Your task to perform on an android device: change keyboard looks Image 0: 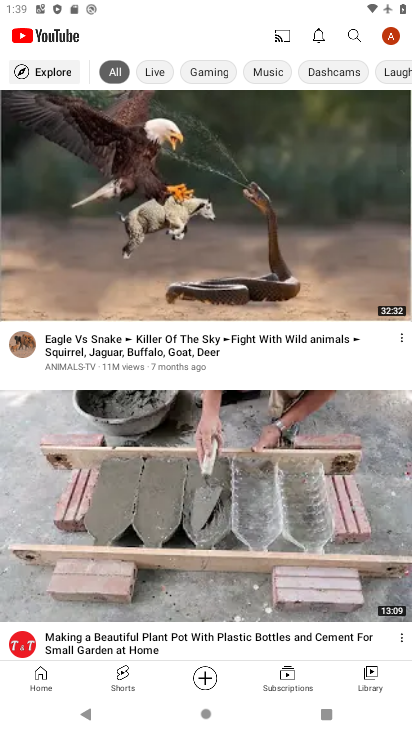
Step 0: press home button
Your task to perform on an android device: change keyboard looks Image 1: 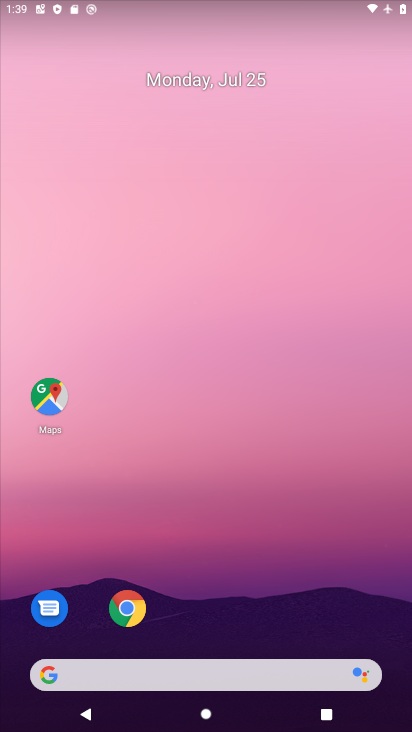
Step 1: drag from (183, 571) to (250, 223)
Your task to perform on an android device: change keyboard looks Image 2: 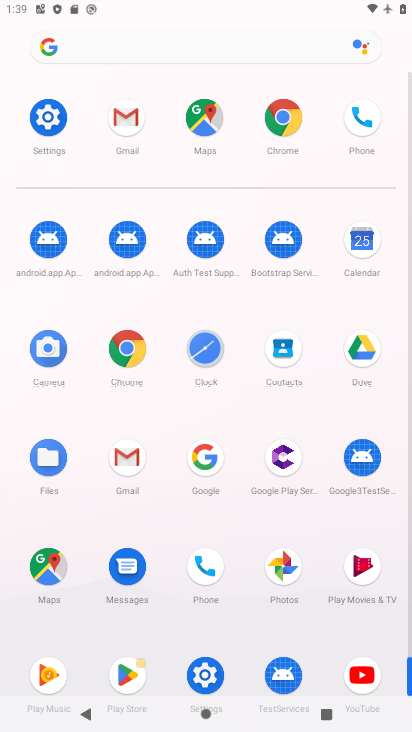
Step 2: click (58, 136)
Your task to perform on an android device: change keyboard looks Image 3: 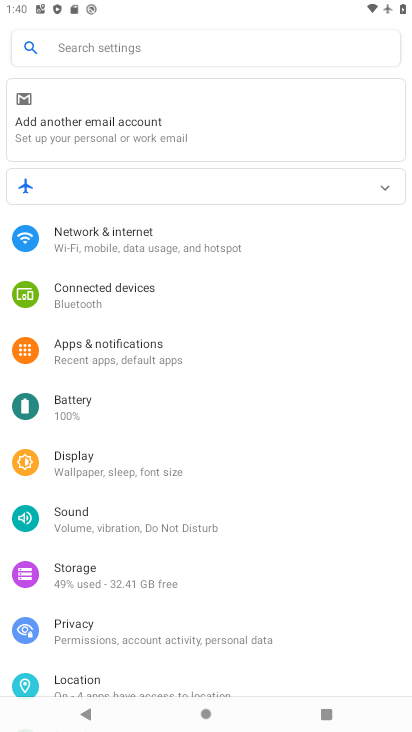
Step 3: drag from (121, 545) to (178, 325)
Your task to perform on an android device: change keyboard looks Image 4: 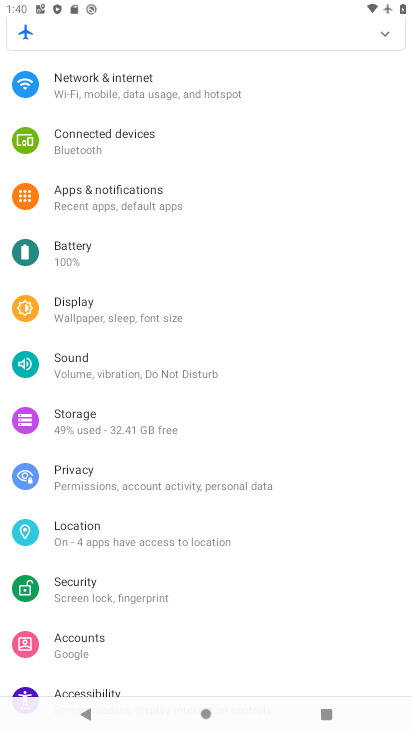
Step 4: drag from (126, 549) to (198, 182)
Your task to perform on an android device: change keyboard looks Image 5: 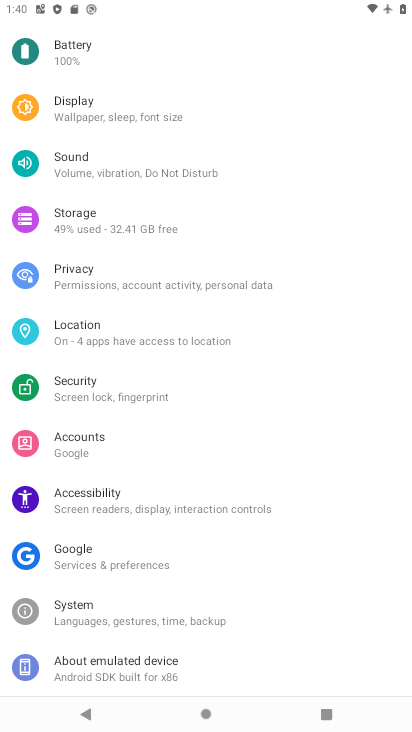
Step 5: click (101, 615)
Your task to perform on an android device: change keyboard looks Image 6: 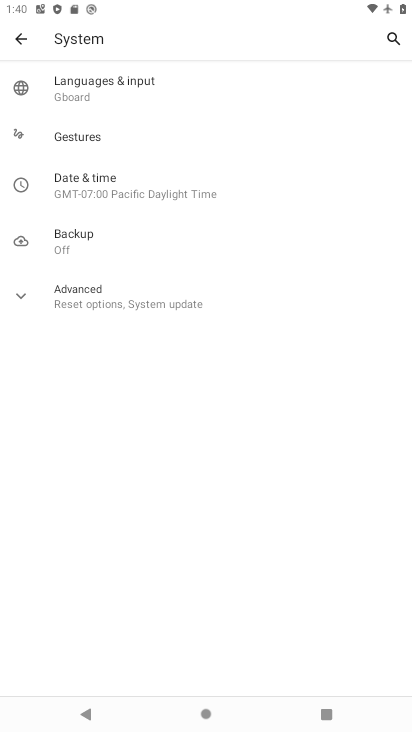
Step 6: click (110, 96)
Your task to perform on an android device: change keyboard looks Image 7: 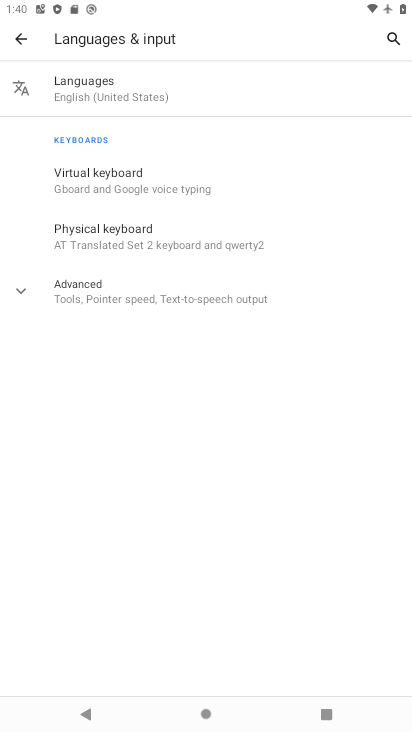
Step 7: click (129, 186)
Your task to perform on an android device: change keyboard looks Image 8: 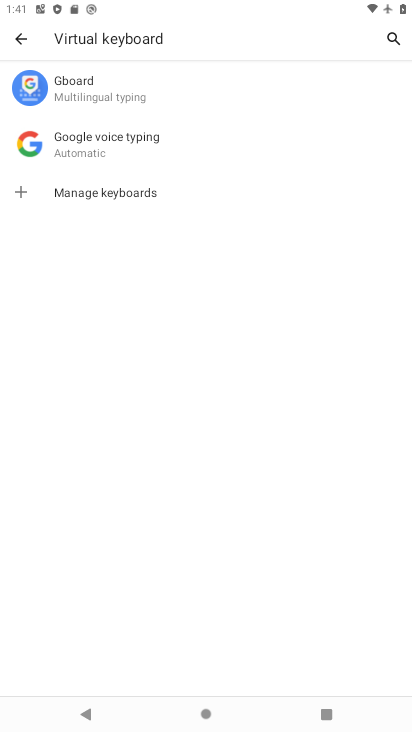
Step 8: click (179, 87)
Your task to perform on an android device: change keyboard looks Image 9: 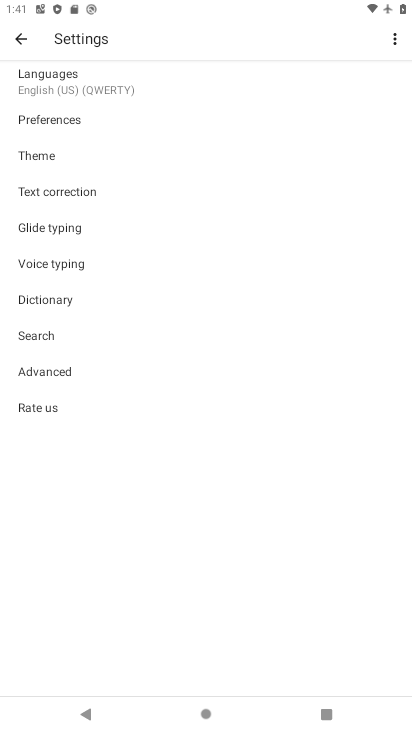
Step 9: click (40, 154)
Your task to perform on an android device: change keyboard looks Image 10: 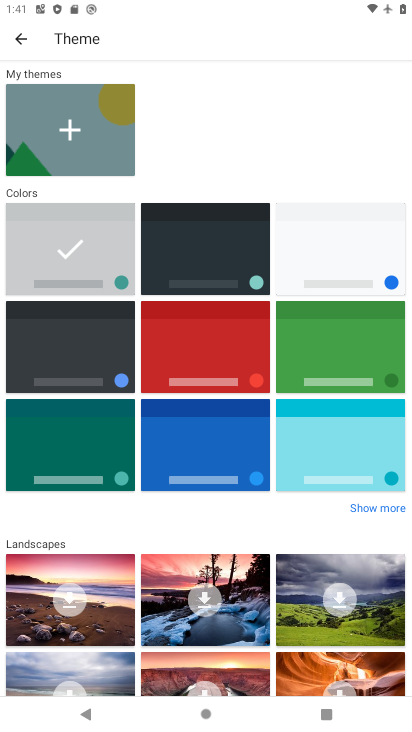
Step 10: click (210, 469)
Your task to perform on an android device: change keyboard looks Image 11: 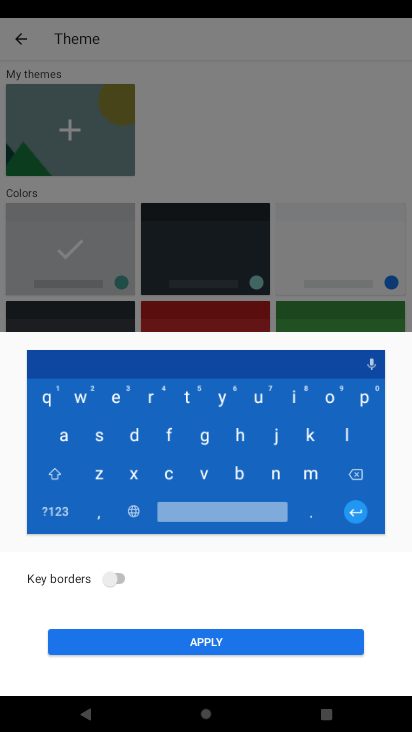
Step 11: click (267, 644)
Your task to perform on an android device: change keyboard looks Image 12: 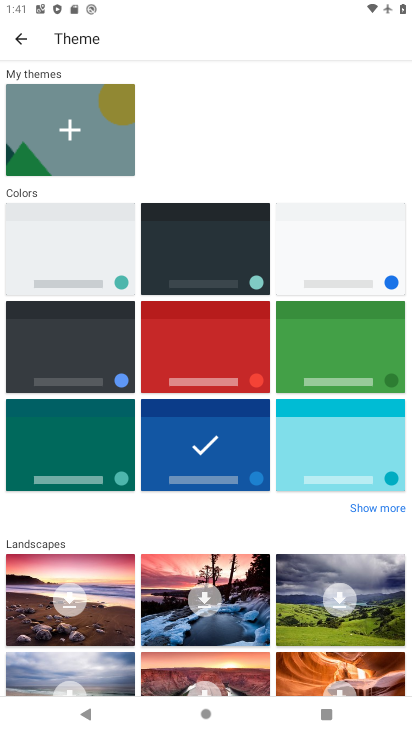
Step 12: task complete